Your task to perform on an android device: toggle priority inbox in the gmail app Image 0: 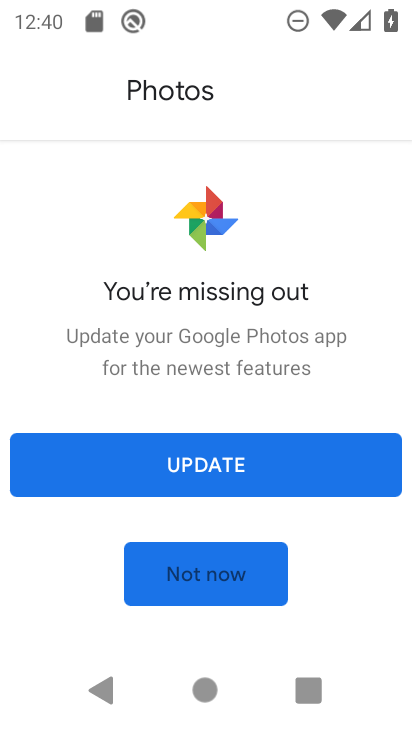
Step 0: press home button
Your task to perform on an android device: toggle priority inbox in the gmail app Image 1: 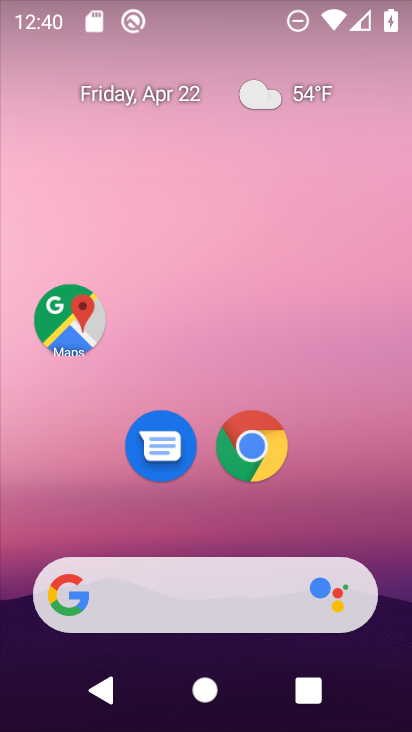
Step 1: drag from (377, 549) to (293, 144)
Your task to perform on an android device: toggle priority inbox in the gmail app Image 2: 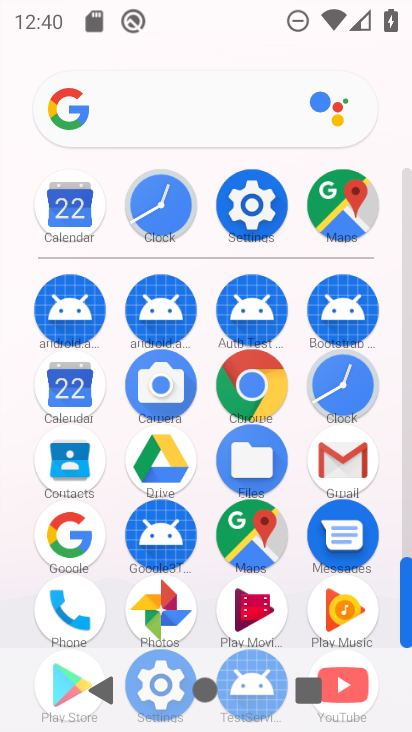
Step 2: click (357, 453)
Your task to perform on an android device: toggle priority inbox in the gmail app Image 3: 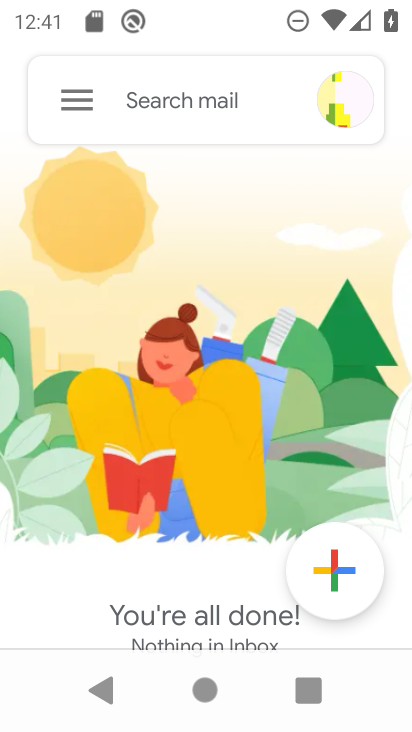
Step 3: click (81, 106)
Your task to perform on an android device: toggle priority inbox in the gmail app Image 4: 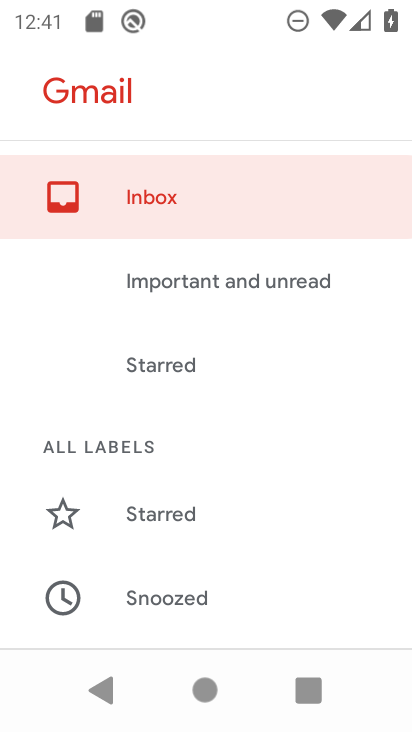
Step 4: drag from (282, 616) to (284, 142)
Your task to perform on an android device: toggle priority inbox in the gmail app Image 5: 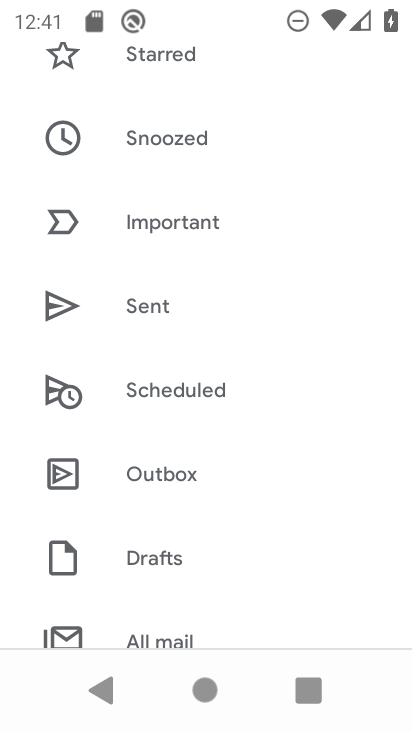
Step 5: drag from (339, 581) to (283, 114)
Your task to perform on an android device: toggle priority inbox in the gmail app Image 6: 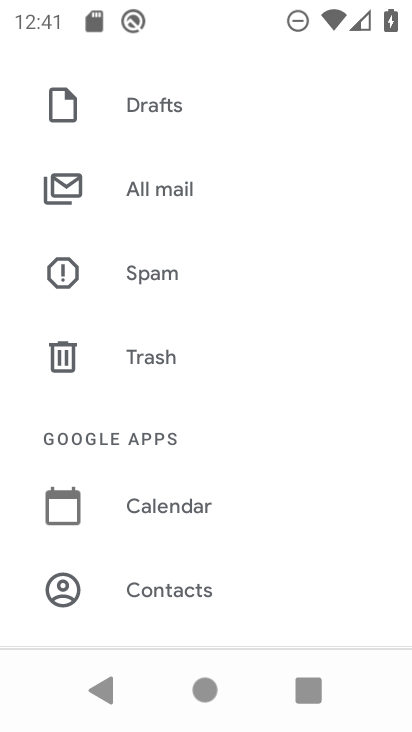
Step 6: drag from (358, 503) to (298, 141)
Your task to perform on an android device: toggle priority inbox in the gmail app Image 7: 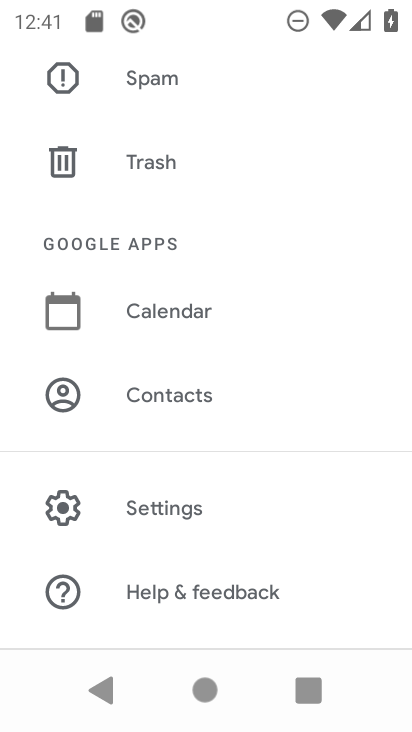
Step 7: click (310, 526)
Your task to perform on an android device: toggle priority inbox in the gmail app Image 8: 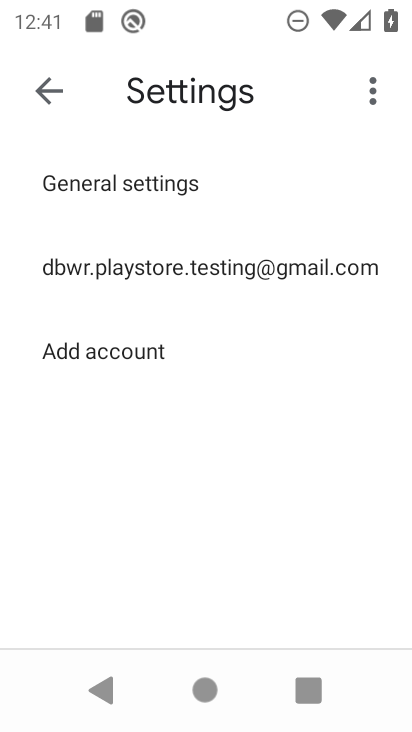
Step 8: click (309, 269)
Your task to perform on an android device: toggle priority inbox in the gmail app Image 9: 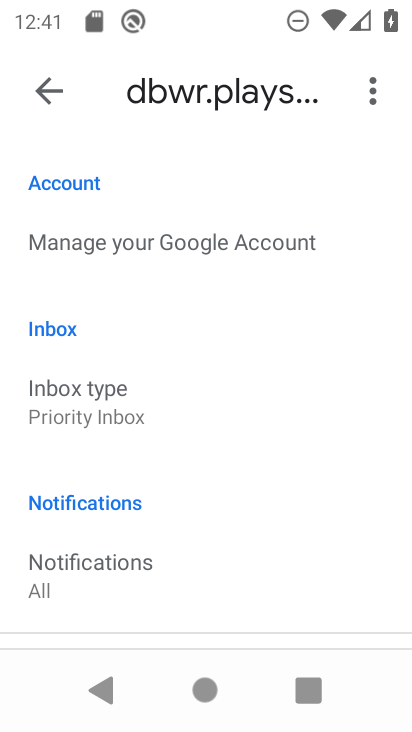
Step 9: click (251, 432)
Your task to perform on an android device: toggle priority inbox in the gmail app Image 10: 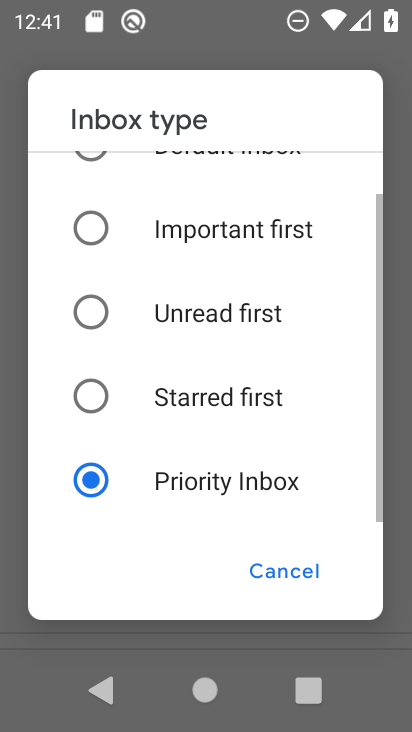
Step 10: click (260, 229)
Your task to perform on an android device: toggle priority inbox in the gmail app Image 11: 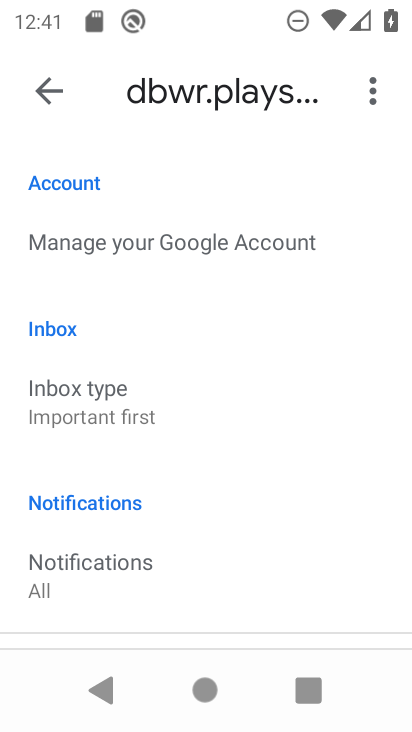
Step 11: task complete